Your task to perform on an android device: make emails show in primary in the gmail app Image 0: 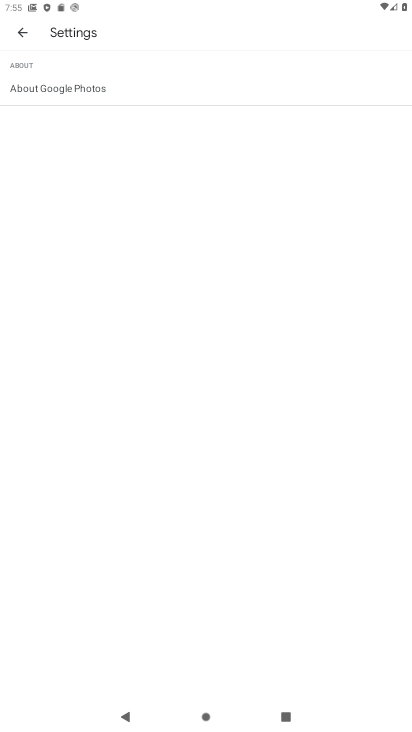
Step 0: press home button
Your task to perform on an android device: make emails show in primary in the gmail app Image 1: 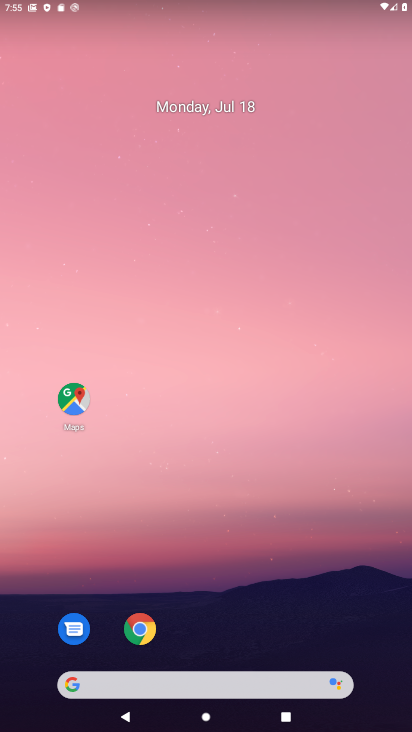
Step 1: drag from (181, 607) to (196, 191)
Your task to perform on an android device: make emails show in primary in the gmail app Image 2: 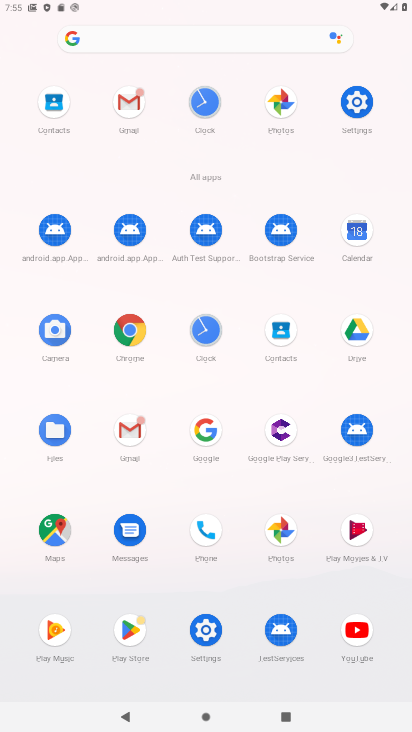
Step 2: click (127, 427)
Your task to perform on an android device: make emails show in primary in the gmail app Image 3: 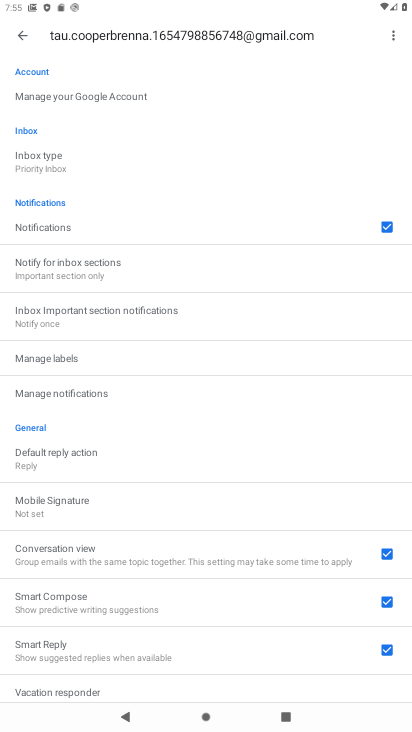
Step 3: click (73, 161)
Your task to perform on an android device: make emails show in primary in the gmail app Image 4: 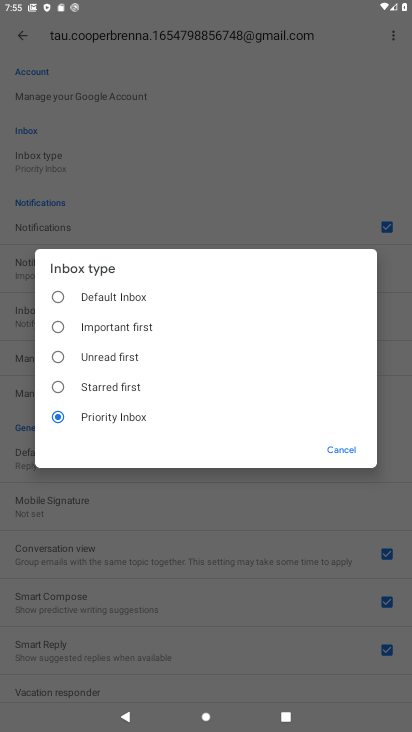
Step 4: click (63, 290)
Your task to perform on an android device: make emails show in primary in the gmail app Image 5: 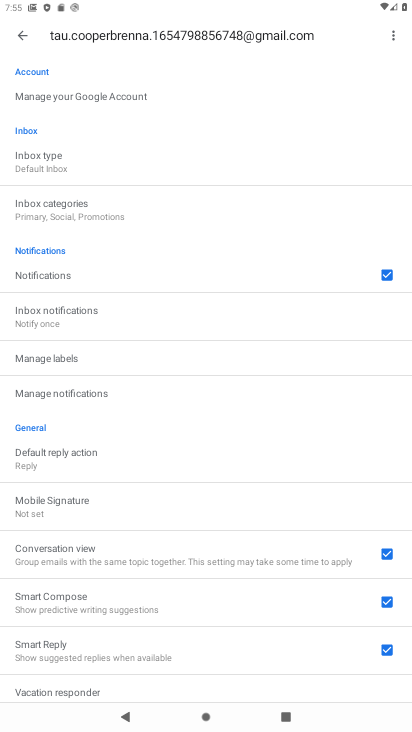
Step 5: click (117, 199)
Your task to perform on an android device: make emails show in primary in the gmail app Image 6: 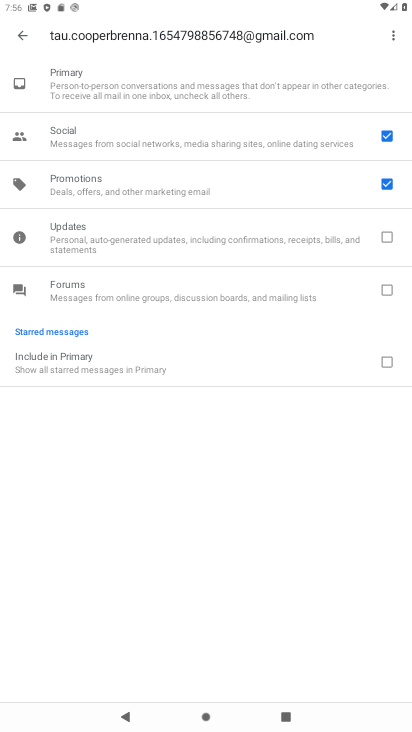
Step 6: click (393, 180)
Your task to perform on an android device: make emails show in primary in the gmail app Image 7: 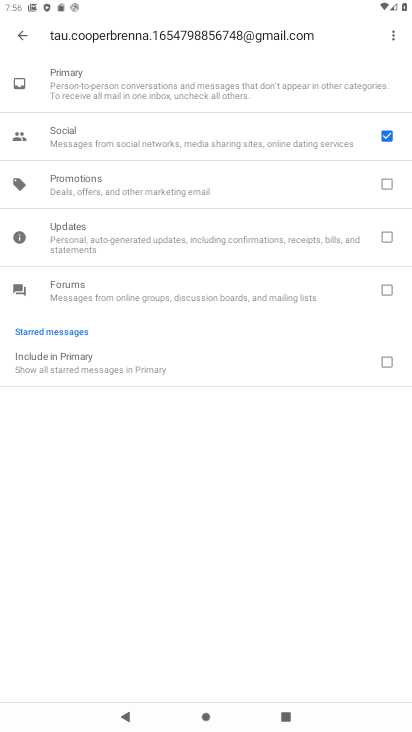
Step 7: click (386, 134)
Your task to perform on an android device: make emails show in primary in the gmail app Image 8: 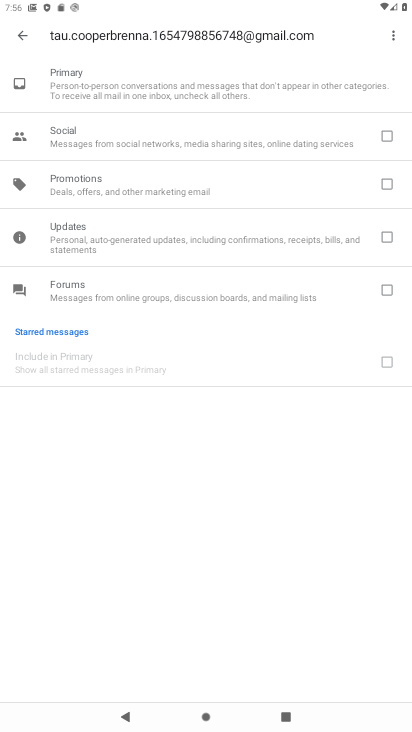
Step 8: click (14, 38)
Your task to perform on an android device: make emails show in primary in the gmail app Image 9: 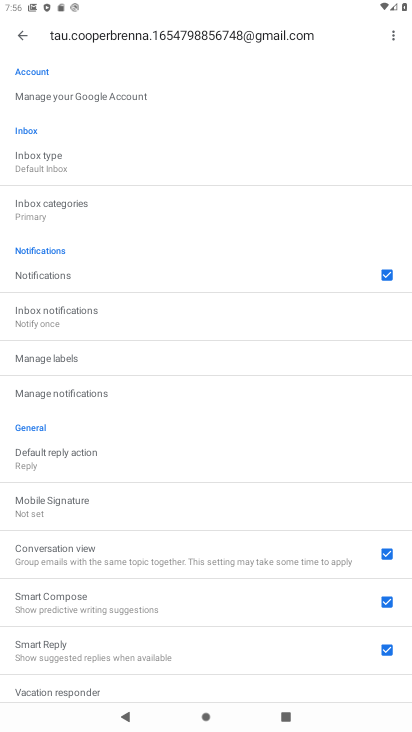
Step 9: task complete